Your task to perform on an android device: Go to eBay Image 0: 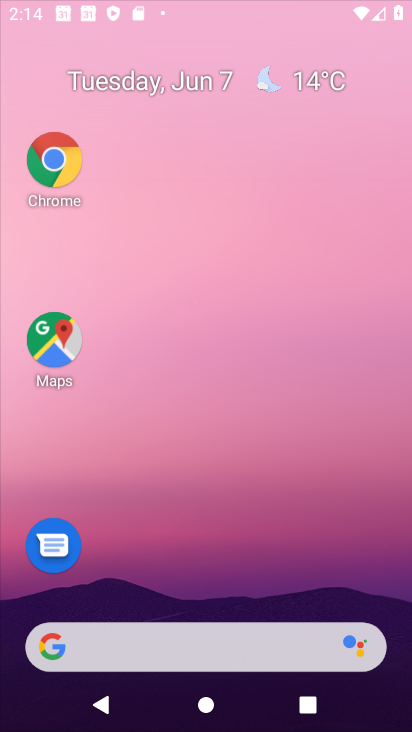
Step 0: click (147, 92)
Your task to perform on an android device: Go to eBay Image 1: 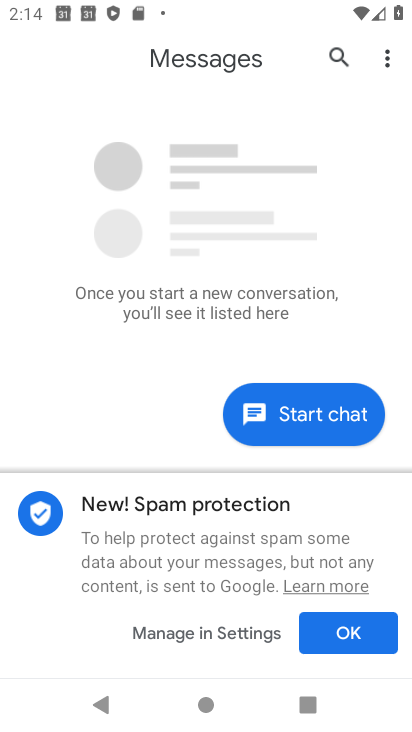
Step 1: press home button
Your task to perform on an android device: Go to eBay Image 2: 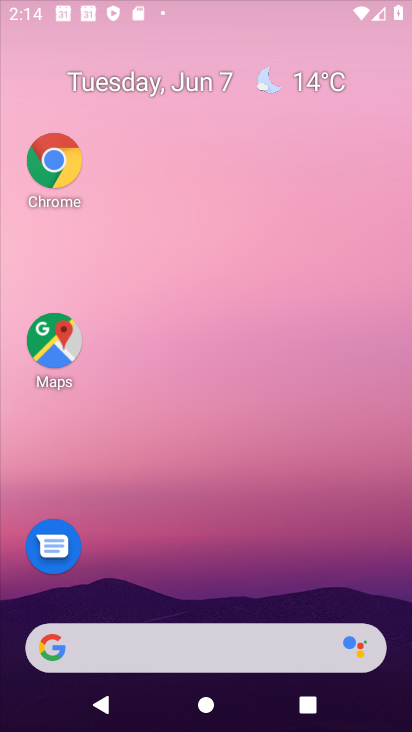
Step 2: drag from (167, 562) to (212, 164)
Your task to perform on an android device: Go to eBay Image 3: 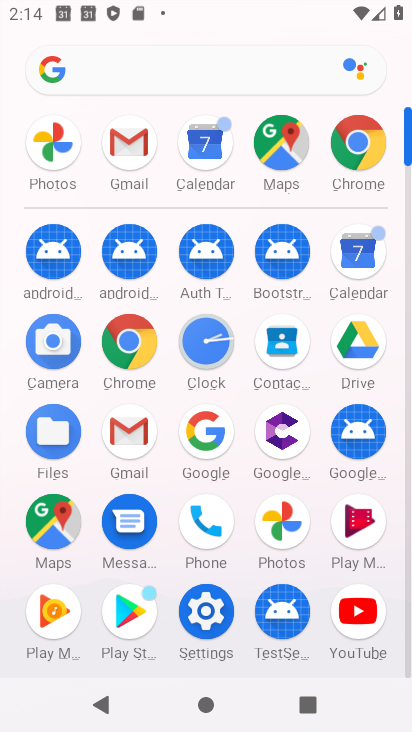
Step 3: click (192, 70)
Your task to perform on an android device: Go to eBay Image 4: 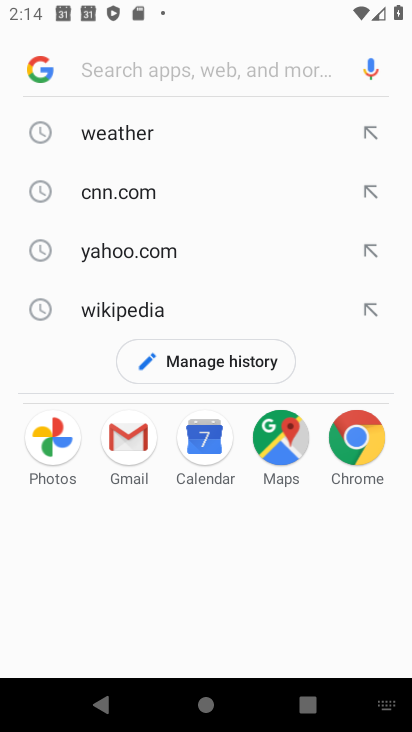
Step 4: type "eBay"
Your task to perform on an android device: Go to eBay Image 5: 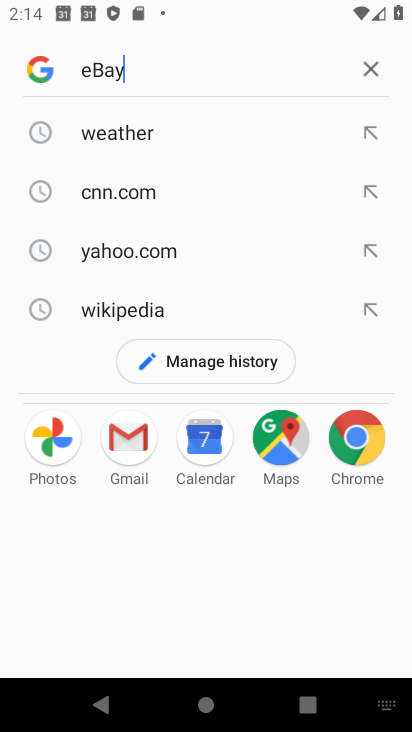
Step 5: type ""
Your task to perform on an android device: Go to eBay Image 6: 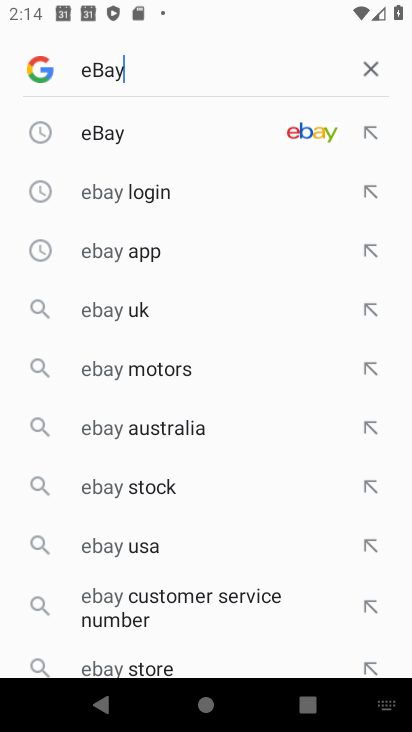
Step 6: click (173, 136)
Your task to perform on an android device: Go to eBay Image 7: 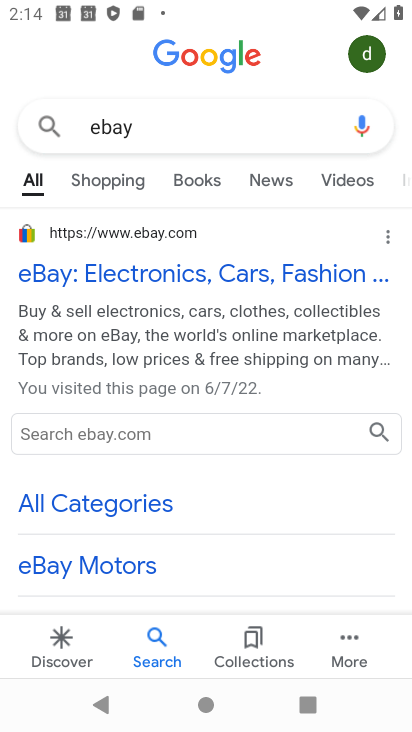
Step 7: click (135, 279)
Your task to perform on an android device: Go to eBay Image 8: 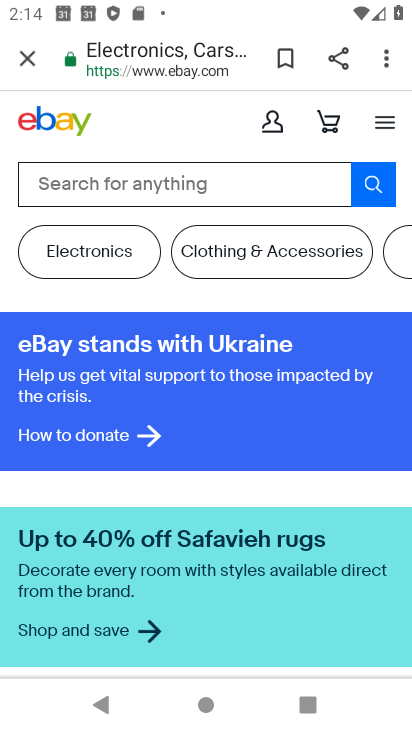
Step 8: task complete